Your task to perform on an android device: Search for a 100 ft extension cord Image 0: 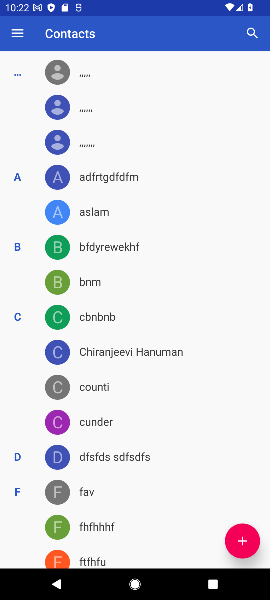
Step 0: press home button
Your task to perform on an android device: Search for a 100 ft extension cord Image 1: 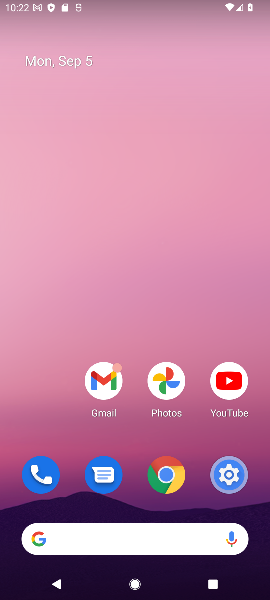
Step 1: click (140, 535)
Your task to perform on an android device: Search for a 100 ft extension cord Image 2: 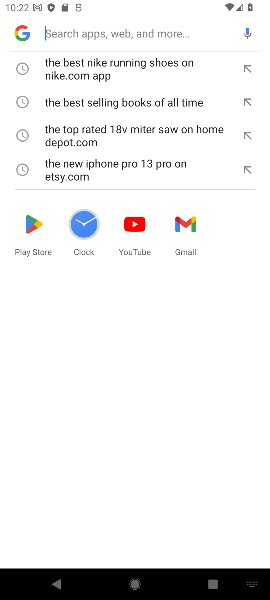
Step 2: type " a 100 ft extension cord"
Your task to perform on an android device: Search for a 100 ft extension cord Image 3: 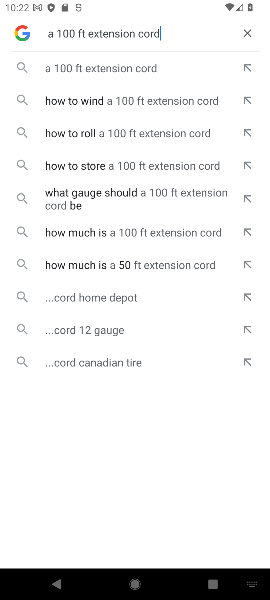
Step 3: click (128, 73)
Your task to perform on an android device: Search for a 100 ft extension cord Image 4: 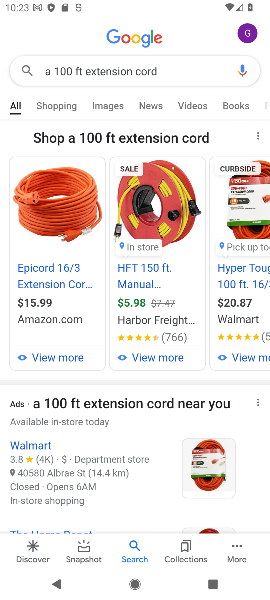
Step 4: task complete